Your task to perform on an android device: set default search engine in the chrome app Image 0: 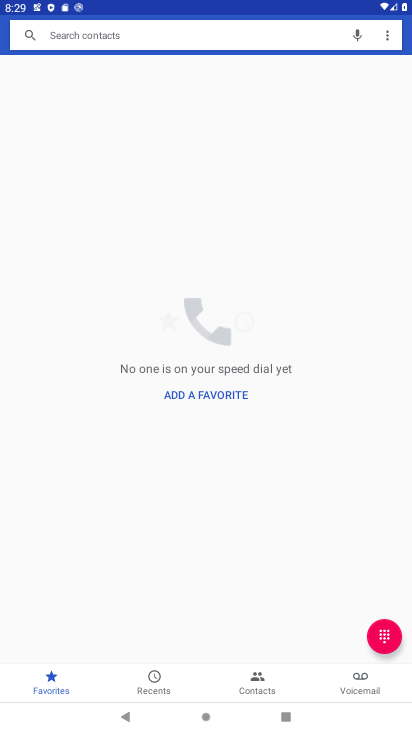
Step 0: press home button
Your task to perform on an android device: set default search engine in the chrome app Image 1: 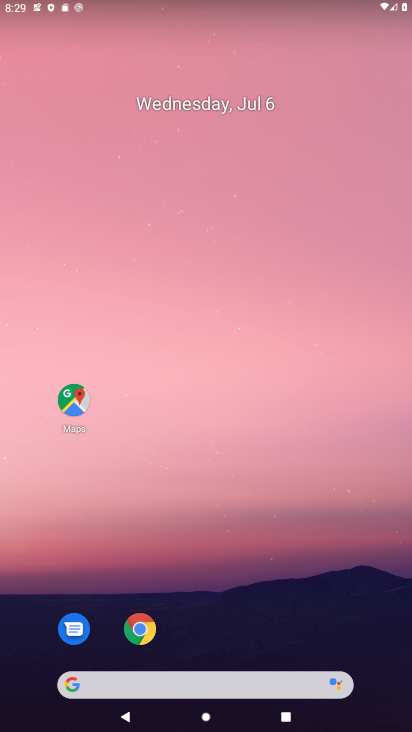
Step 1: drag from (230, 722) to (237, 27)
Your task to perform on an android device: set default search engine in the chrome app Image 2: 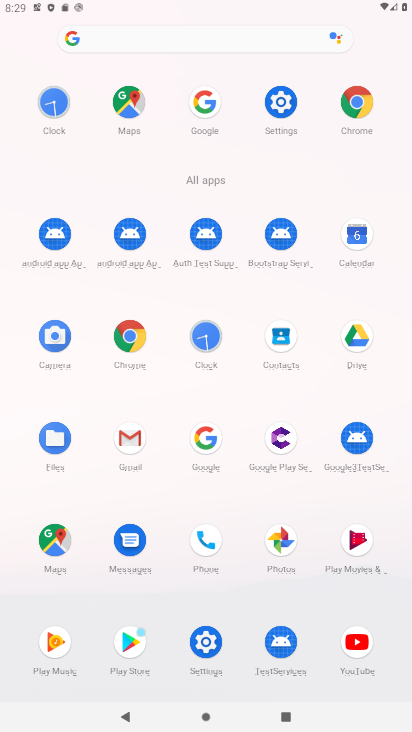
Step 2: click (365, 91)
Your task to perform on an android device: set default search engine in the chrome app Image 3: 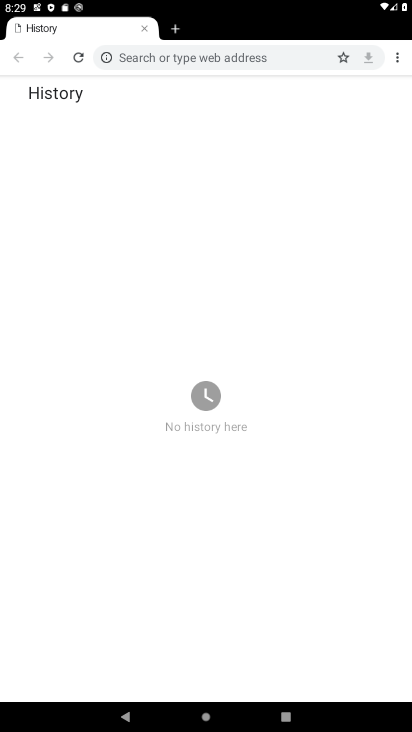
Step 3: click (22, 57)
Your task to perform on an android device: set default search engine in the chrome app Image 4: 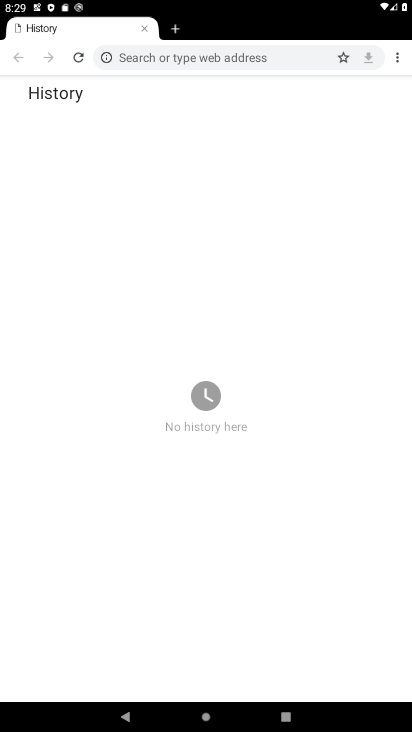
Step 4: click (396, 62)
Your task to perform on an android device: set default search engine in the chrome app Image 5: 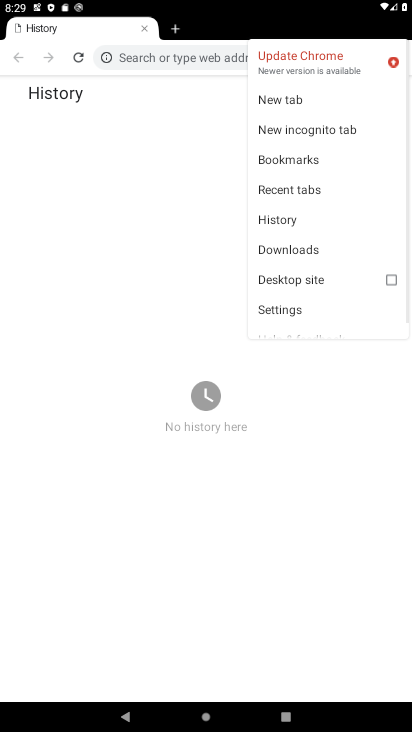
Step 5: click (281, 307)
Your task to perform on an android device: set default search engine in the chrome app Image 6: 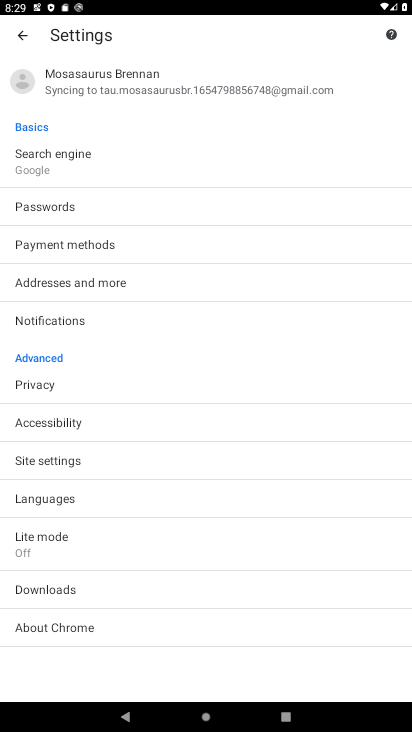
Step 6: click (81, 161)
Your task to perform on an android device: set default search engine in the chrome app Image 7: 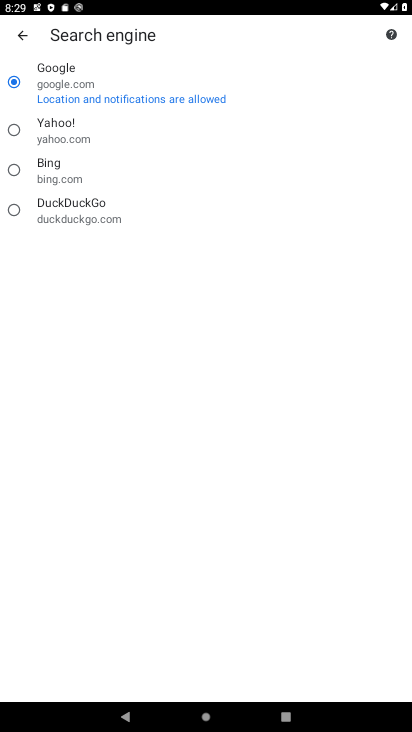
Step 7: click (16, 132)
Your task to perform on an android device: set default search engine in the chrome app Image 8: 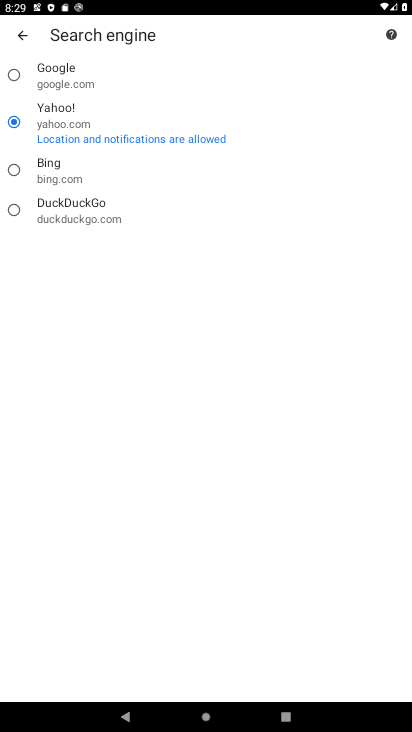
Step 8: task complete